Your task to perform on an android device: clear history in the chrome app Image 0: 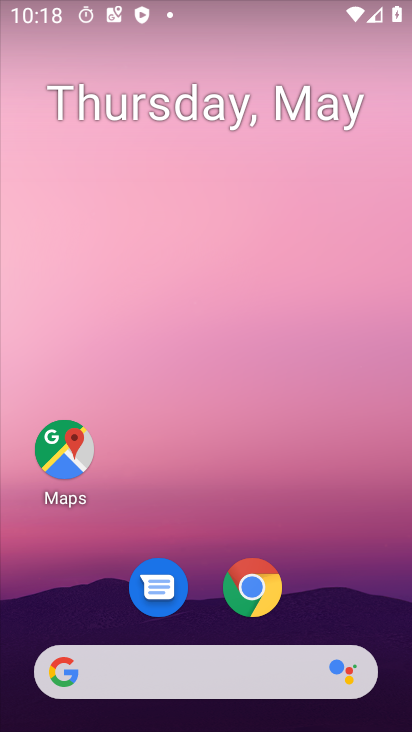
Step 0: click (258, 589)
Your task to perform on an android device: clear history in the chrome app Image 1: 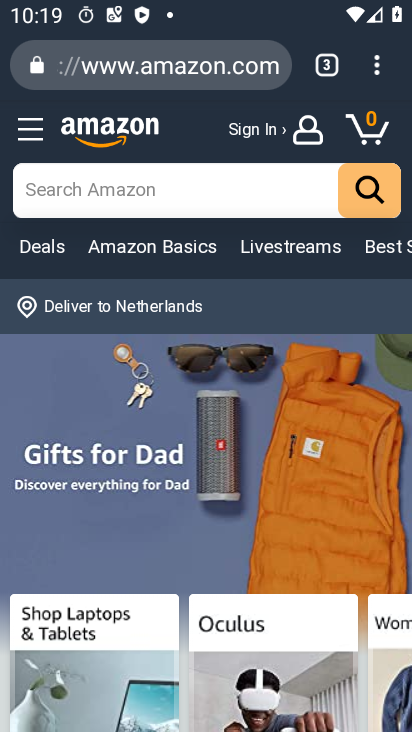
Step 1: click (378, 65)
Your task to perform on an android device: clear history in the chrome app Image 2: 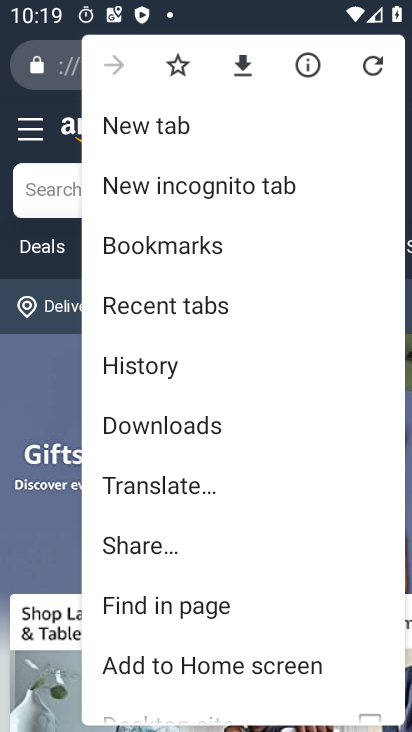
Step 2: drag from (336, 652) to (334, 135)
Your task to perform on an android device: clear history in the chrome app Image 3: 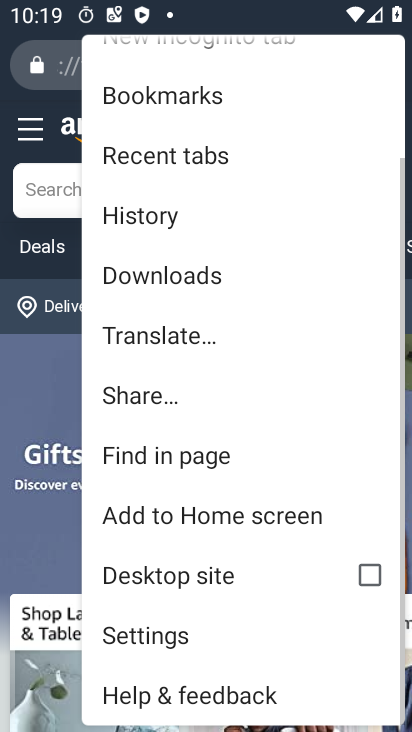
Step 3: click (150, 635)
Your task to perform on an android device: clear history in the chrome app Image 4: 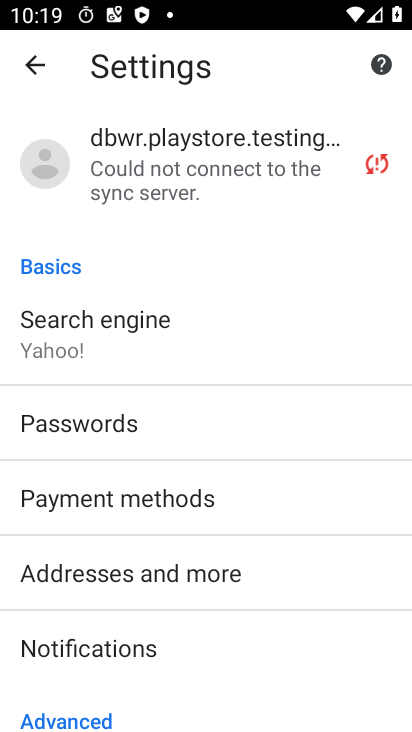
Step 4: drag from (227, 645) to (207, 188)
Your task to perform on an android device: clear history in the chrome app Image 5: 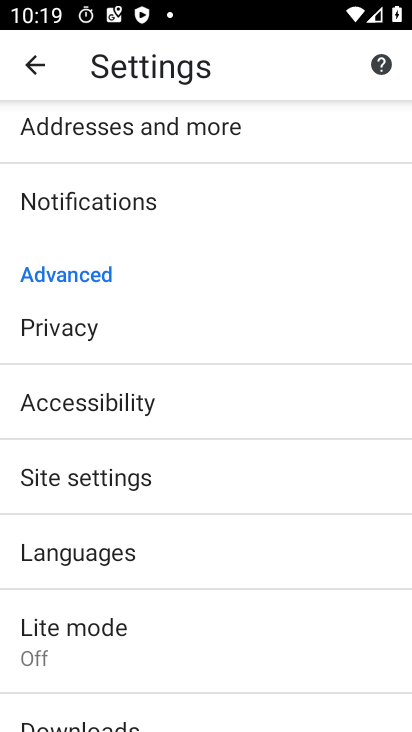
Step 5: click (40, 332)
Your task to perform on an android device: clear history in the chrome app Image 6: 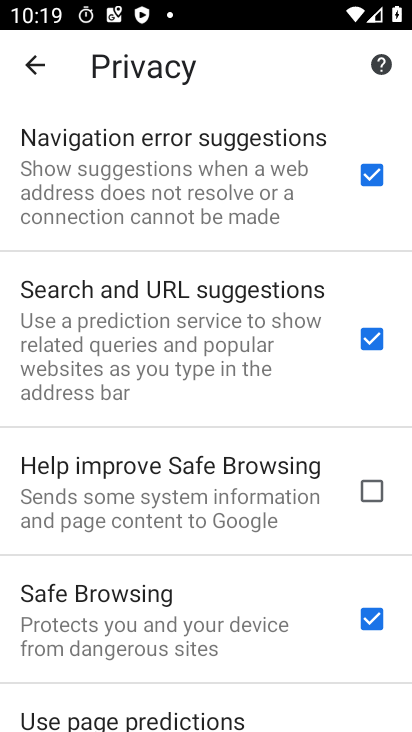
Step 6: drag from (176, 624) to (190, 65)
Your task to perform on an android device: clear history in the chrome app Image 7: 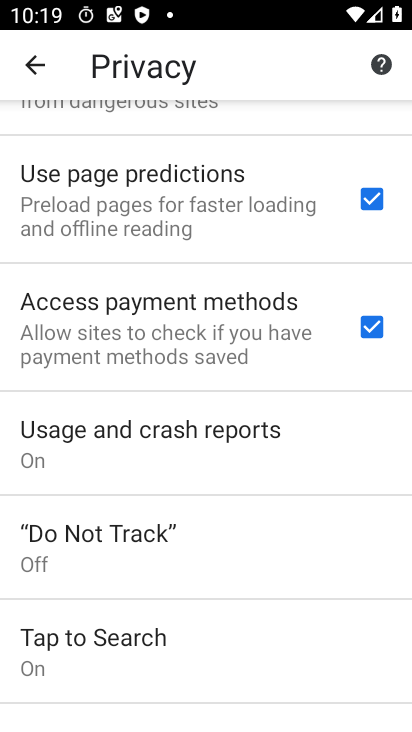
Step 7: drag from (139, 554) to (169, 122)
Your task to perform on an android device: clear history in the chrome app Image 8: 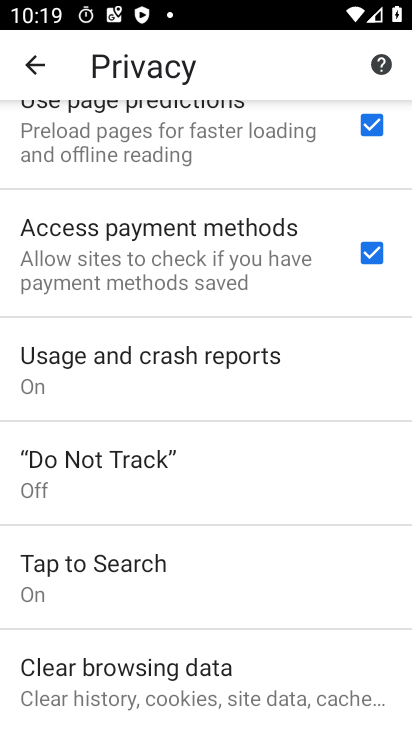
Step 8: click (120, 681)
Your task to perform on an android device: clear history in the chrome app Image 9: 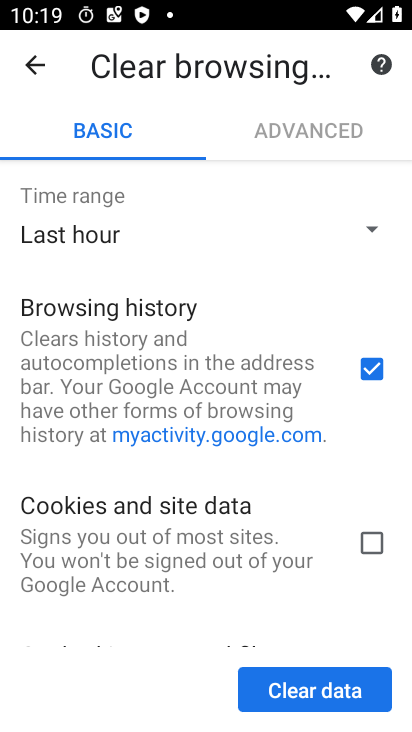
Step 9: click (372, 371)
Your task to perform on an android device: clear history in the chrome app Image 10: 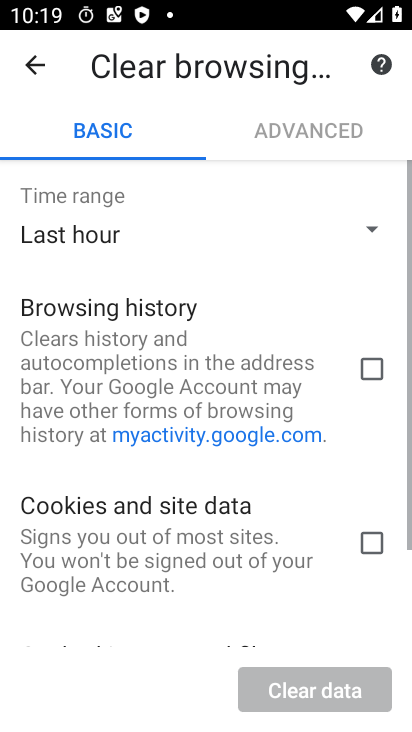
Step 10: click (373, 372)
Your task to perform on an android device: clear history in the chrome app Image 11: 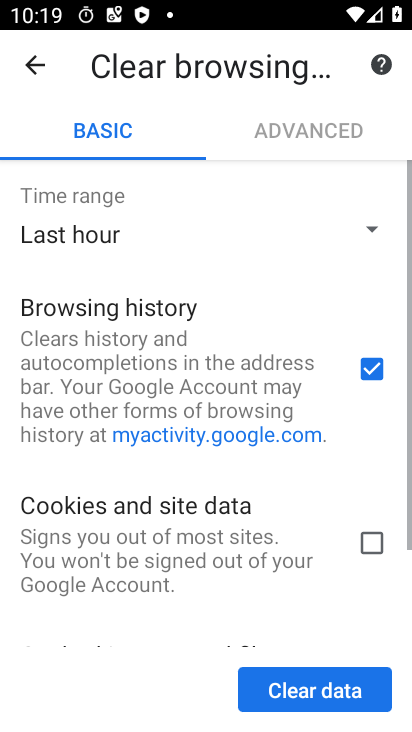
Step 11: drag from (116, 537) to (151, 100)
Your task to perform on an android device: clear history in the chrome app Image 12: 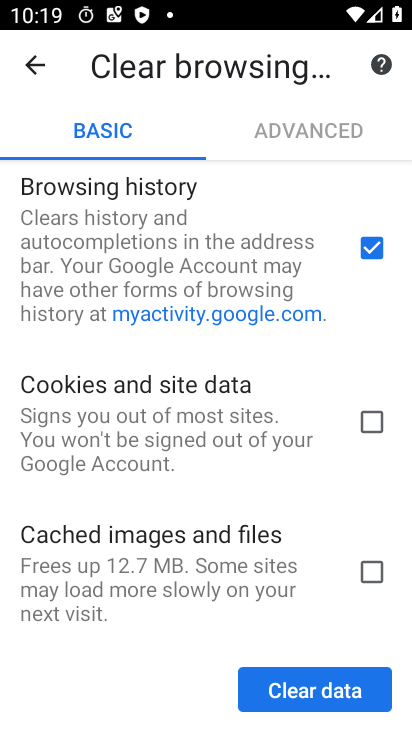
Step 12: click (313, 699)
Your task to perform on an android device: clear history in the chrome app Image 13: 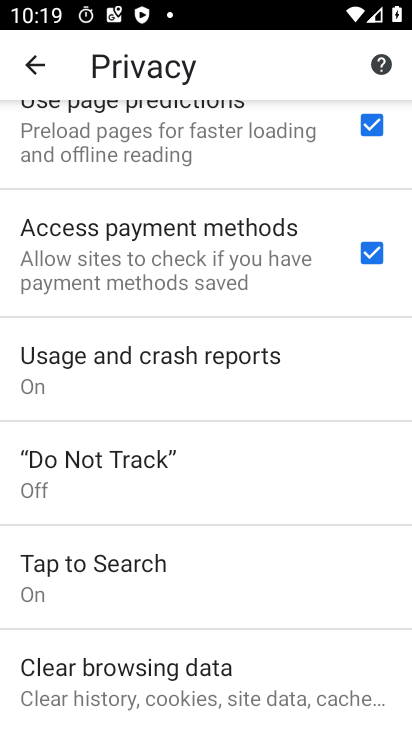
Step 13: task complete